Your task to perform on an android device: open app "Indeed Job Search" (install if not already installed) Image 0: 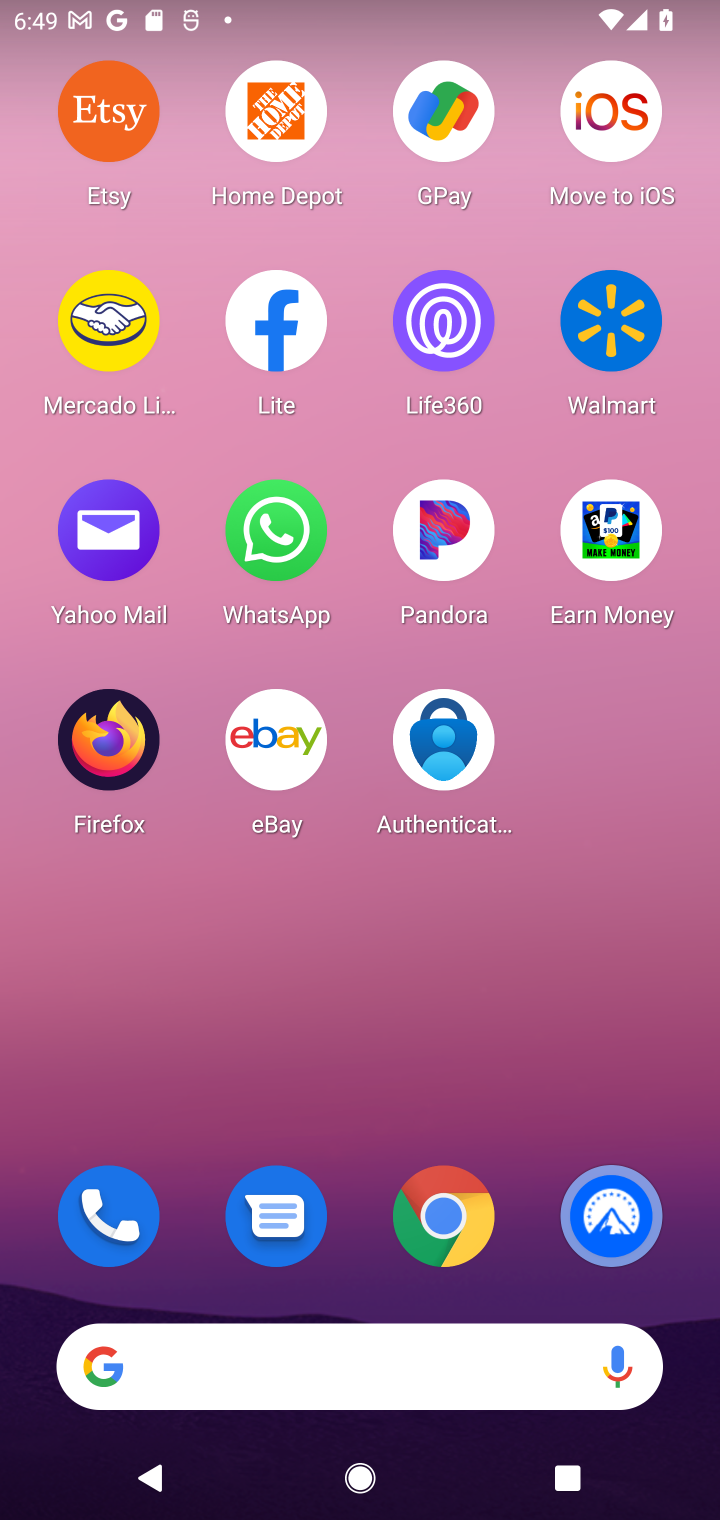
Step 0: drag from (535, 1270) to (531, 480)
Your task to perform on an android device: open app "Indeed Job Search" (install if not already installed) Image 1: 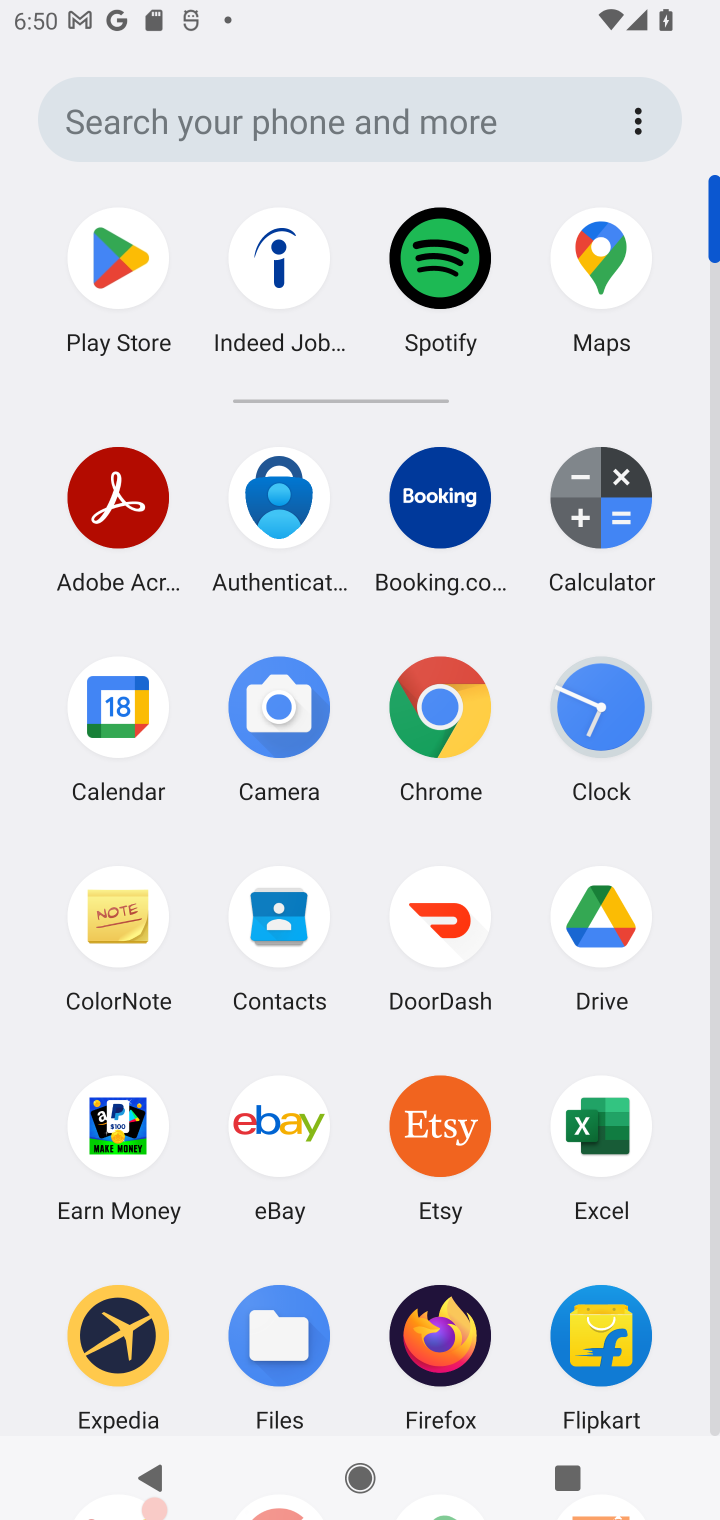
Step 1: drag from (527, 1326) to (499, 484)
Your task to perform on an android device: open app "Indeed Job Search" (install if not already installed) Image 2: 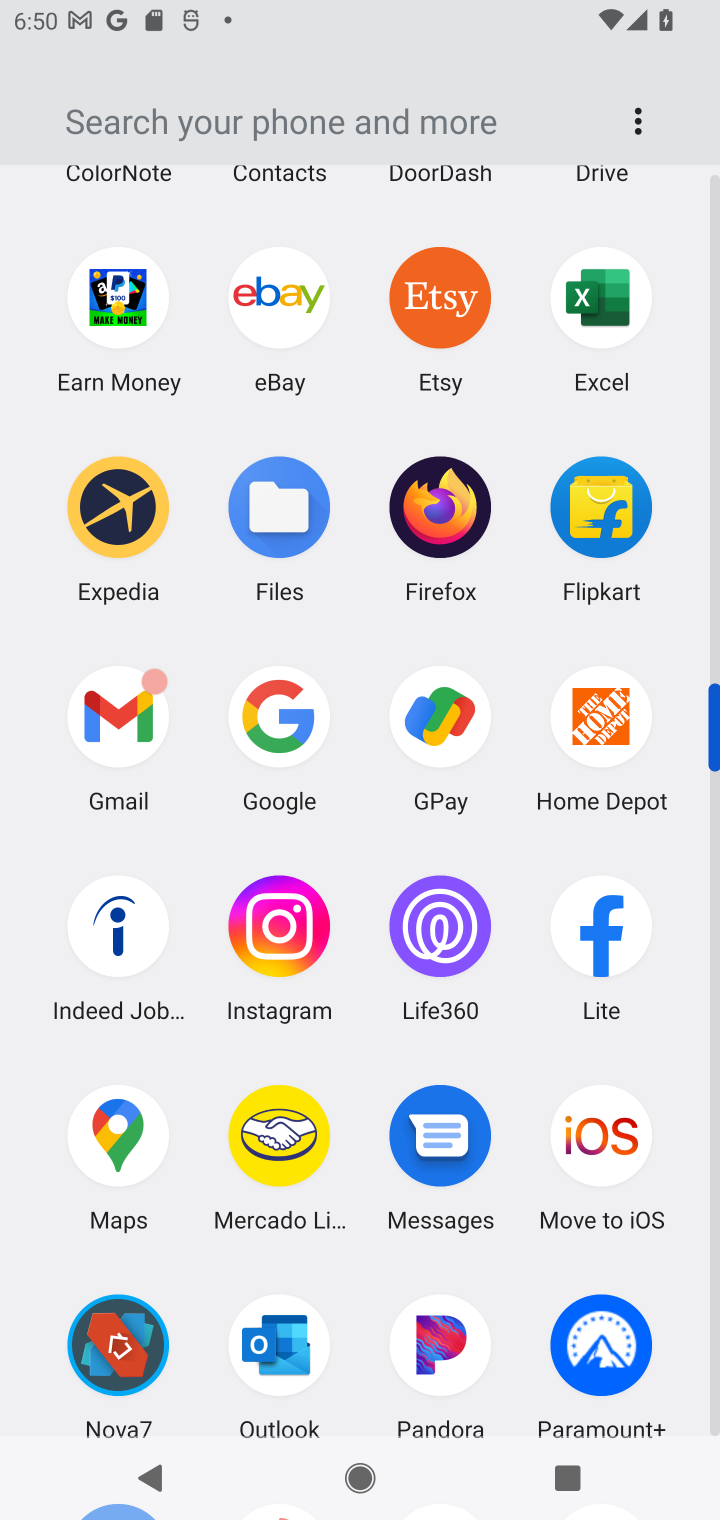
Step 2: click (111, 927)
Your task to perform on an android device: open app "Indeed Job Search" (install if not already installed) Image 3: 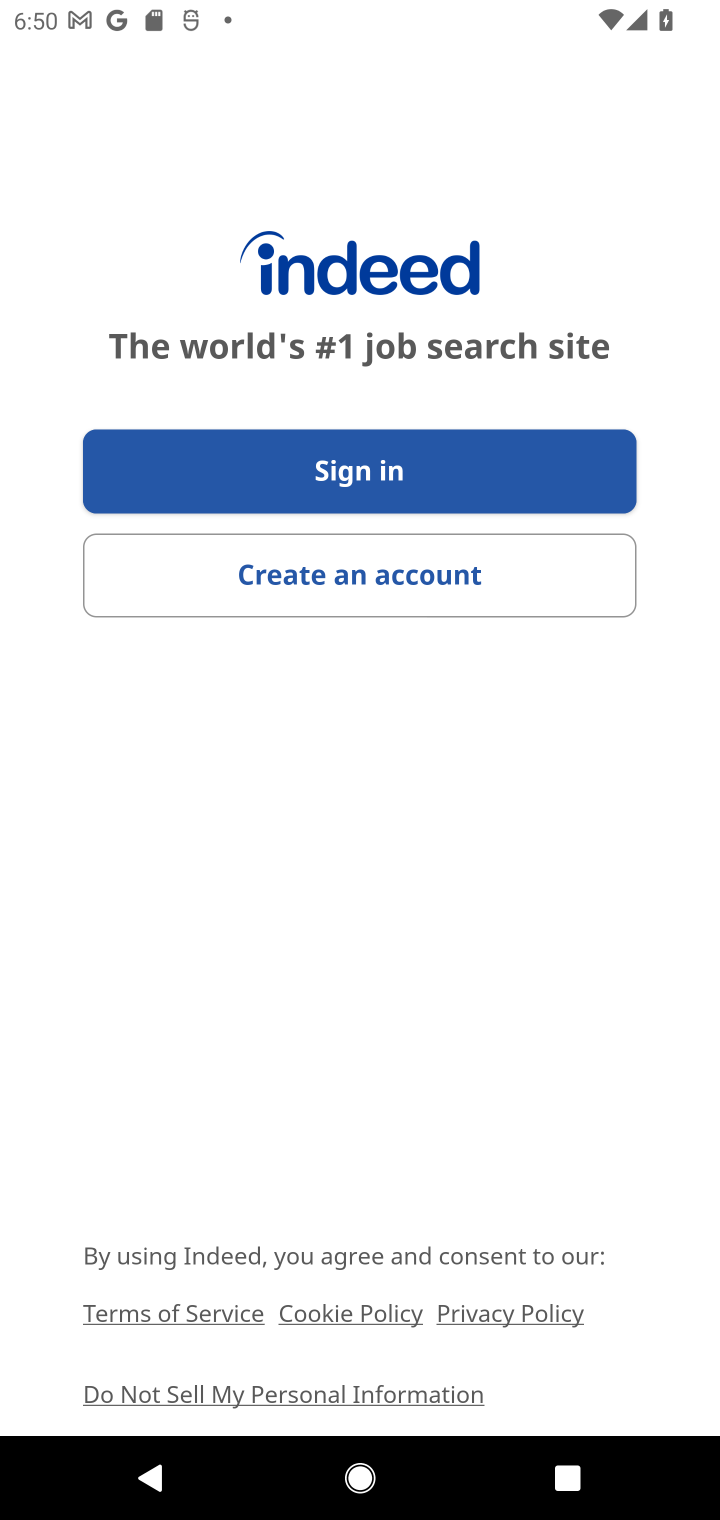
Step 3: task complete